Your task to perform on an android device: Open settings Image 0: 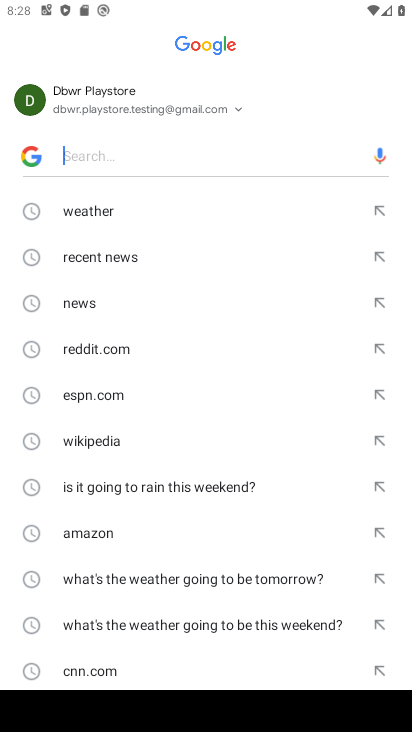
Step 0: press home button
Your task to perform on an android device: Open settings Image 1: 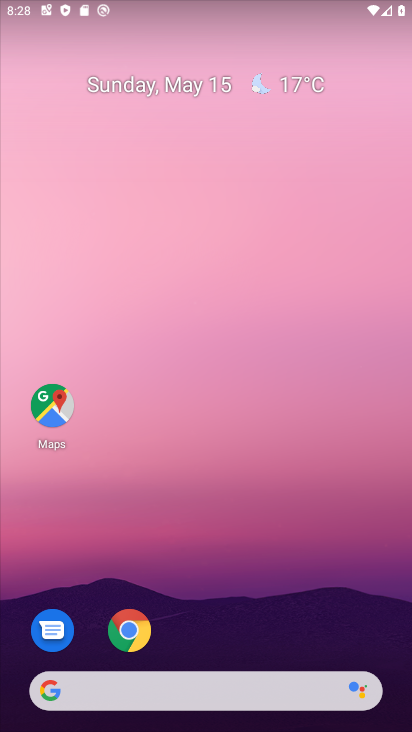
Step 1: drag from (269, 292) to (257, 15)
Your task to perform on an android device: Open settings Image 2: 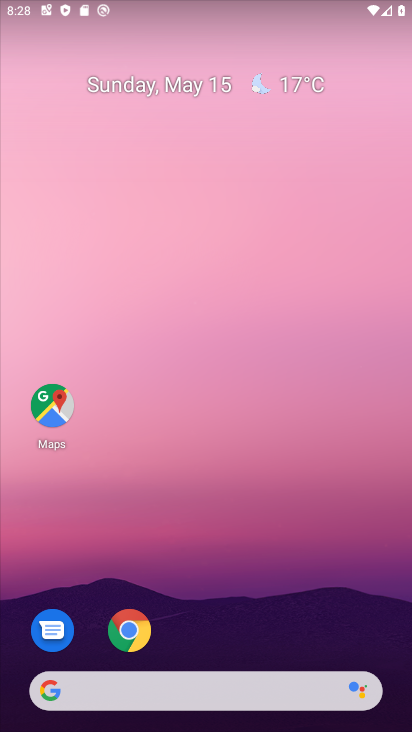
Step 2: drag from (285, 498) to (220, 1)
Your task to perform on an android device: Open settings Image 3: 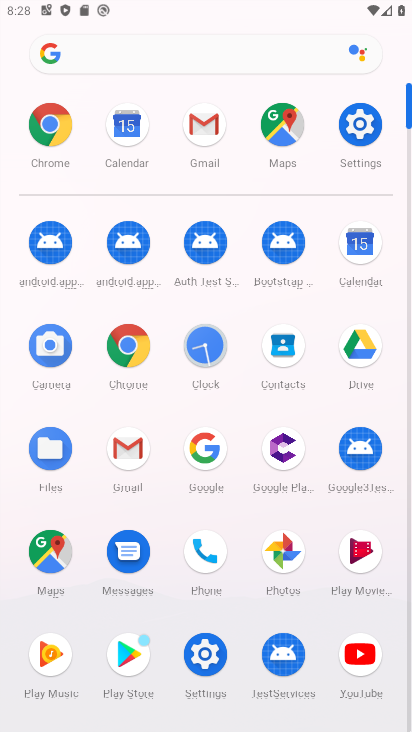
Step 3: click (366, 134)
Your task to perform on an android device: Open settings Image 4: 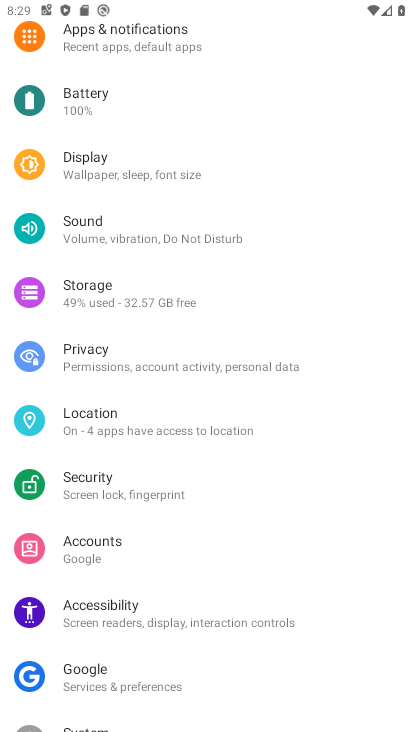
Step 4: task complete